Your task to perform on an android device: What is the recent news? Image 0: 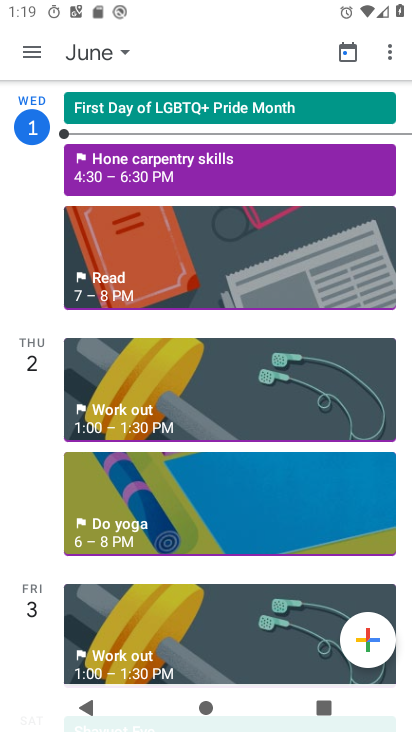
Step 0: press home button
Your task to perform on an android device: What is the recent news? Image 1: 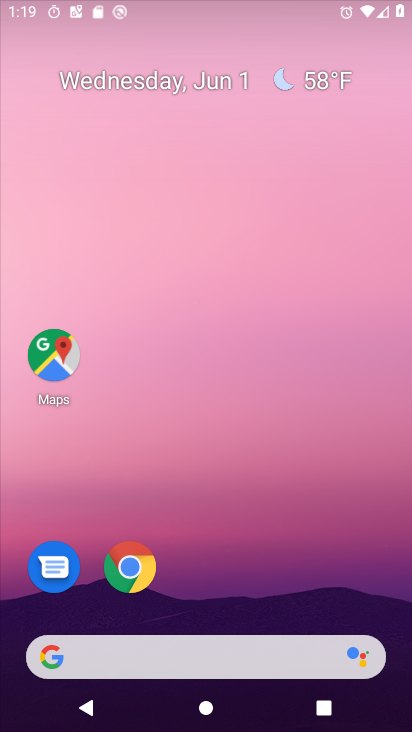
Step 1: drag from (271, 557) to (219, 64)
Your task to perform on an android device: What is the recent news? Image 2: 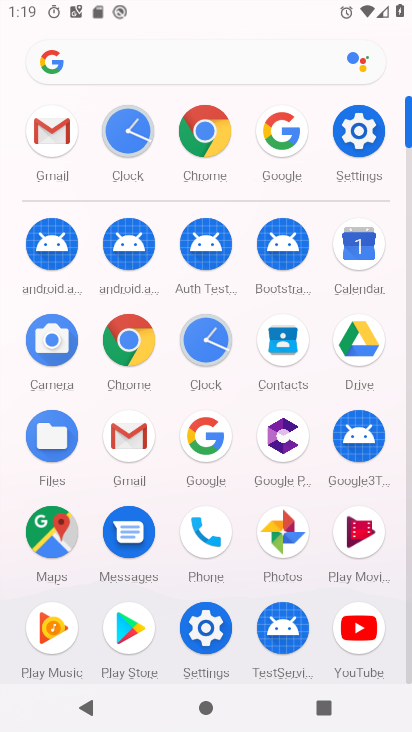
Step 2: click (205, 434)
Your task to perform on an android device: What is the recent news? Image 3: 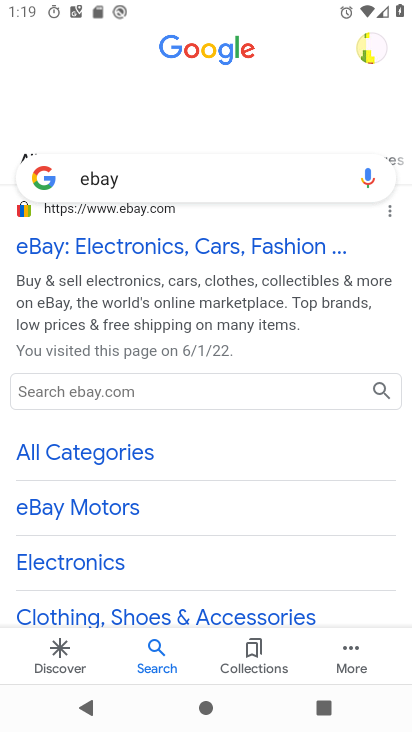
Step 3: click (179, 188)
Your task to perform on an android device: What is the recent news? Image 4: 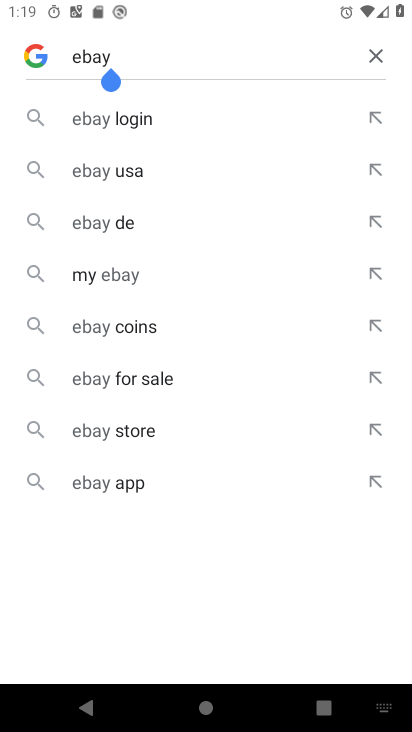
Step 4: click (387, 55)
Your task to perform on an android device: What is the recent news? Image 5: 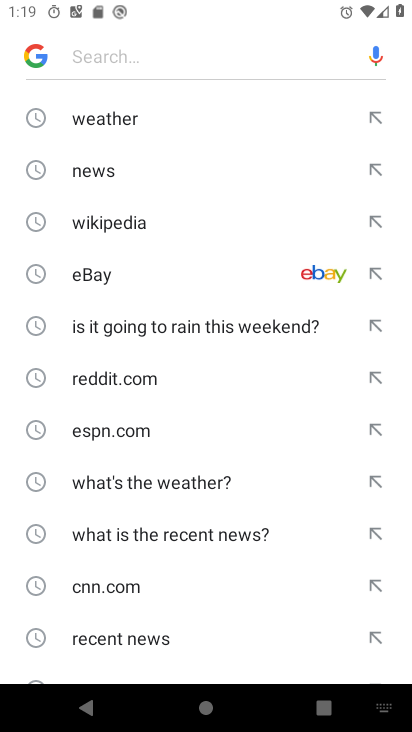
Step 5: click (168, 641)
Your task to perform on an android device: What is the recent news? Image 6: 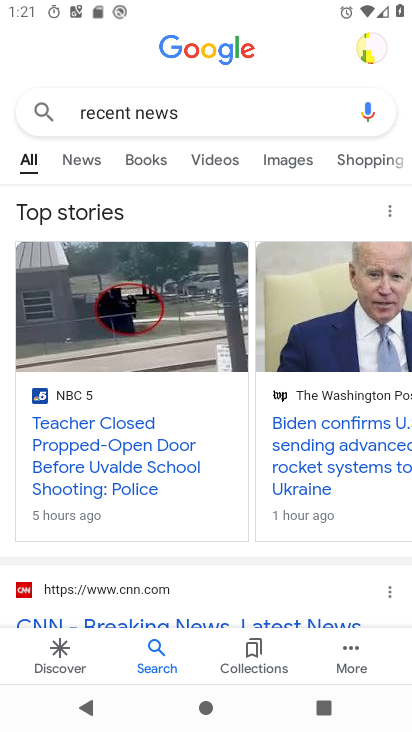
Step 6: task complete